Your task to perform on an android device: turn on bluetooth scan Image 0: 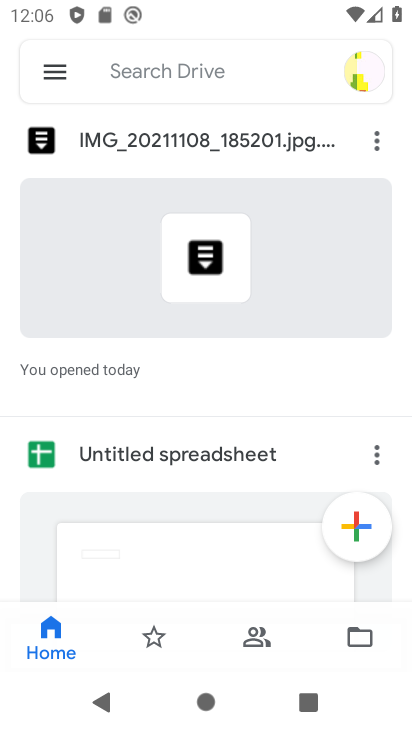
Step 0: press home button
Your task to perform on an android device: turn on bluetooth scan Image 1: 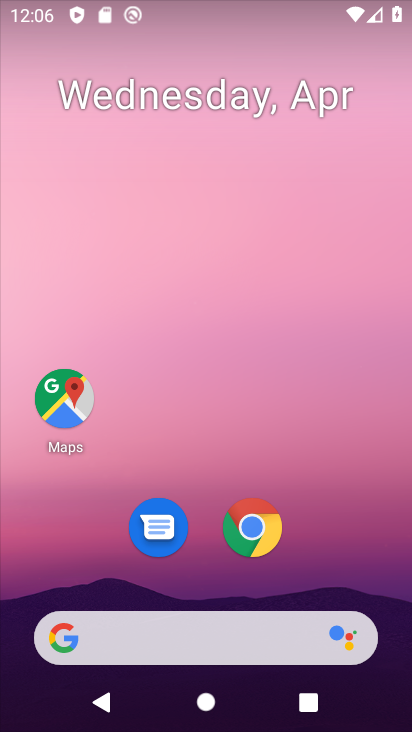
Step 1: drag from (354, 464) to (291, 19)
Your task to perform on an android device: turn on bluetooth scan Image 2: 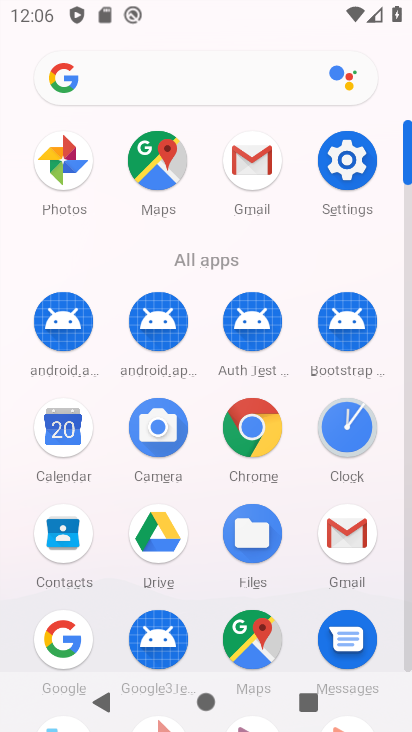
Step 2: click (342, 165)
Your task to perform on an android device: turn on bluetooth scan Image 3: 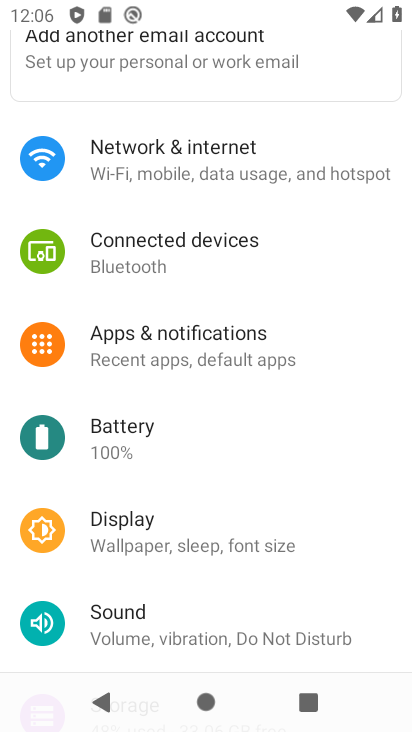
Step 3: drag from (367, 522) to (337, 100)
Your task to perform on an android device: turn on bluetooth scan Image 4: 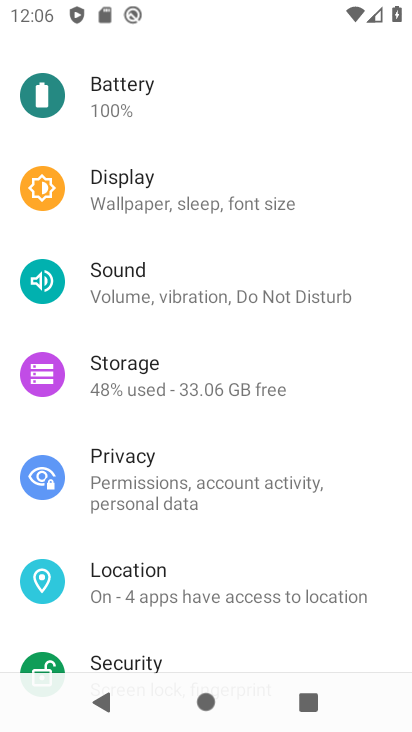
Step 4: click (113, 578)
Your task to perform on an android device: turn on bluetooth scan Image 5: 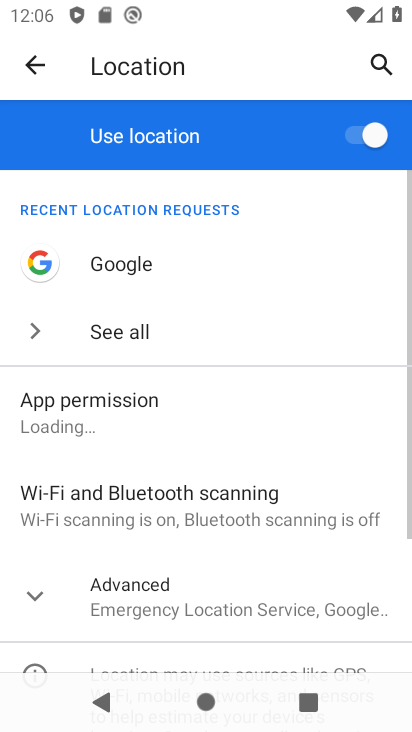
Step 5: click (173, 512)
Your task to perform on an android device: turn on bluetooth scan Image 6: 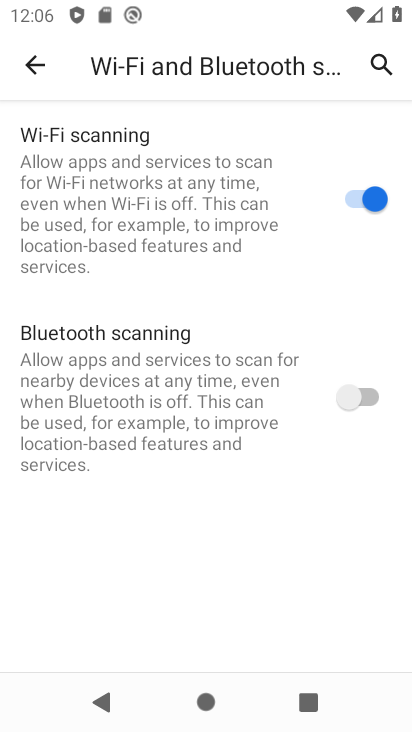
Step 6: click (333, 388)
Your task to perform on an android device: turn on bluetooth scan Image 7: 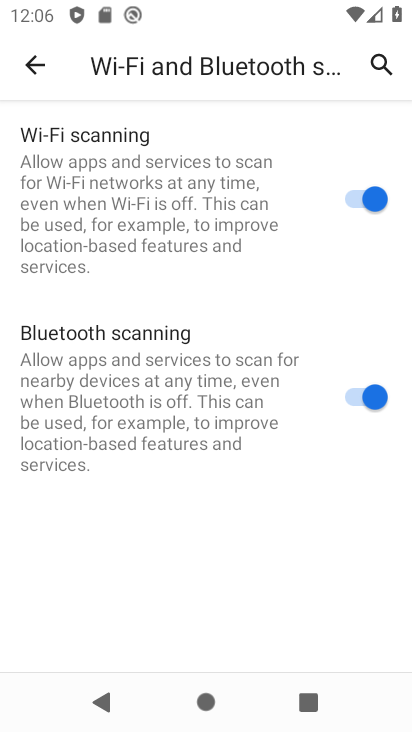
Step 7: task complete